Your task to perform on an android device: Open the phone app and click the voicemail tab. Image 0: 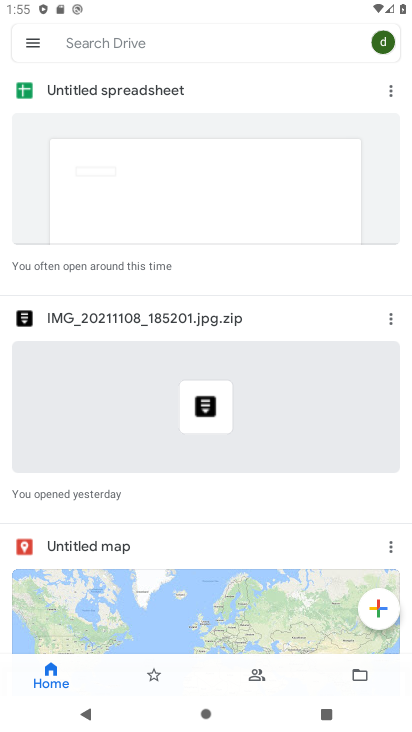
Step 0: press home button
Your task to perform on an android device: Open the phone app and click the voicemail tab. Image 1: 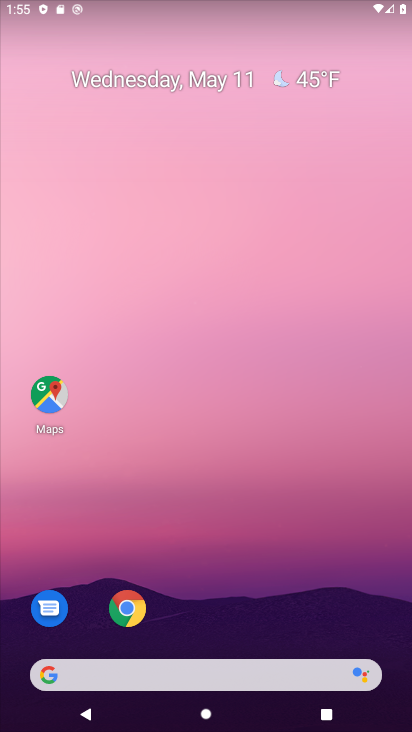
Step 1: drag from (214, 607) to (240, 100)
Your task to perform on an android device: Open the phone app and click the voicemail tab. Image 2: 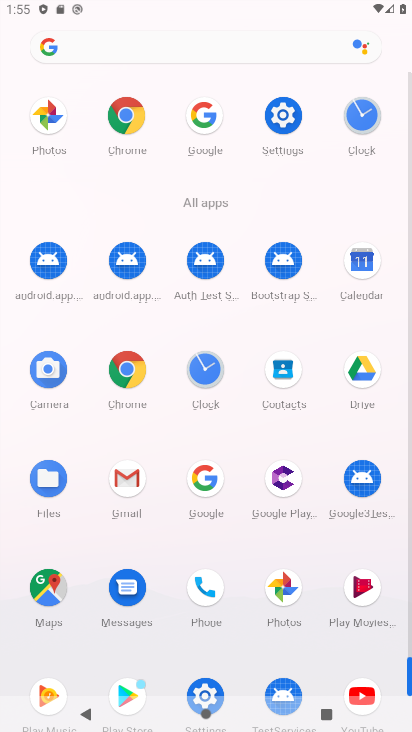
Step 2: drag from (174, 550) to (162, 397)
Your task to perform on an android device: Open the phone app and click the voicemail tab. Image 3: 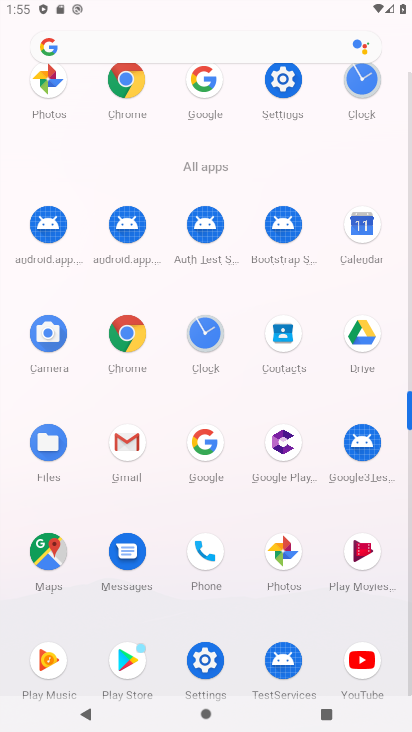
Step 3: click (213, 547)
Your task to perform on an android device: Open the phone app and click the voicemail tab. Image 4: 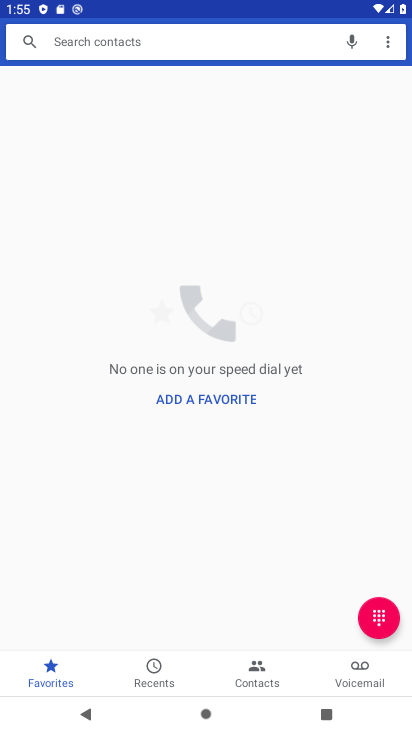
Step 4: click (349, 671)
Your task to perform on an android device: Open the phone app and click the voicemail tab. Image 5: 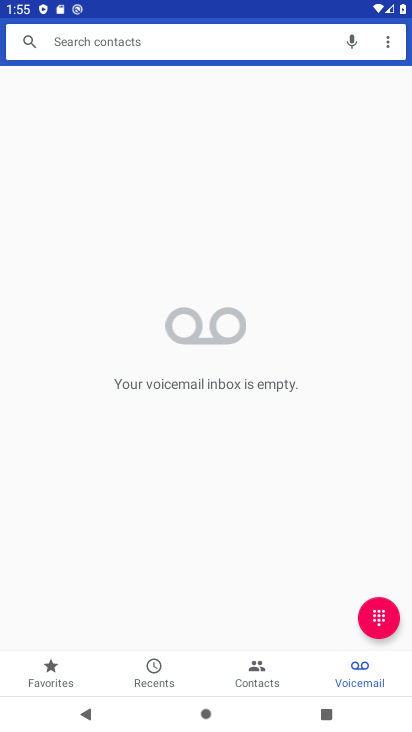
Step 5: task complete